Your task to perform on an android device: Show me recent news Image 0: 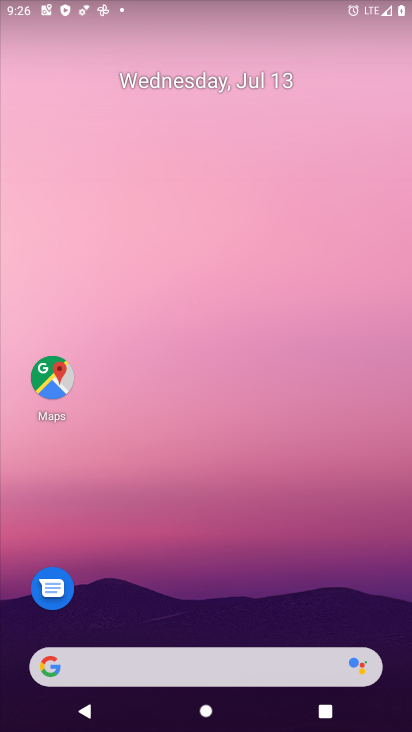
Step 0: click (238, 674)
Your task to perform on an android device: Show me recent news Image 1: 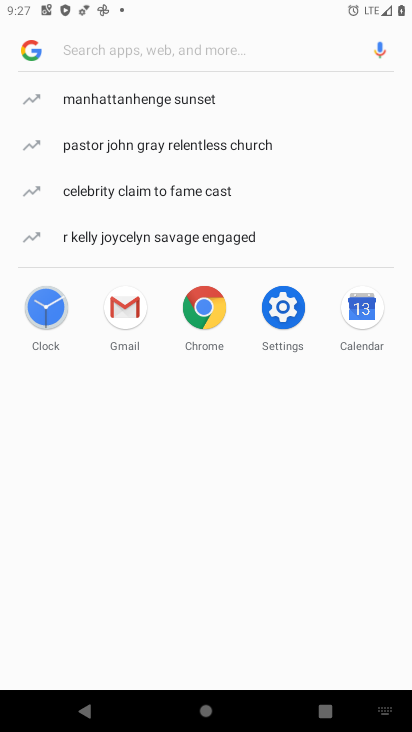
Step 1: type "recent news"
Your task to perform on an android device: Show me recent news Image 2: 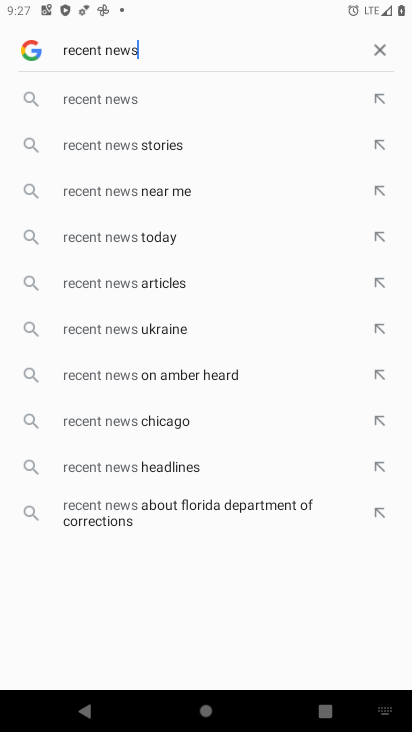
Step 2: click (145, 101)
Your task to perform on an android device: Show me recent news Image 3: 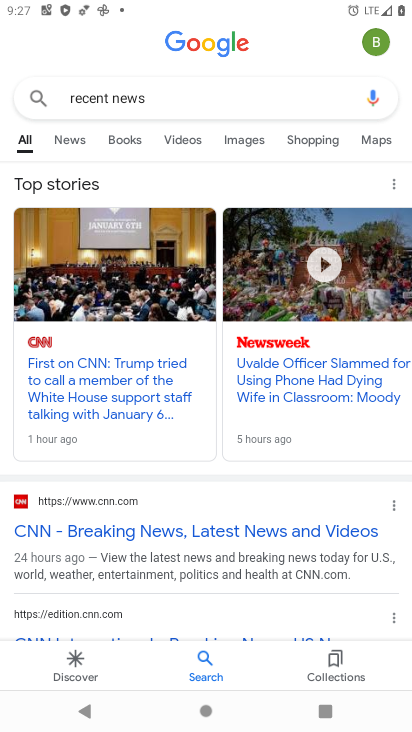
Step 3: task complete